Your task to perform on an android device: open wifi settings Image 0: 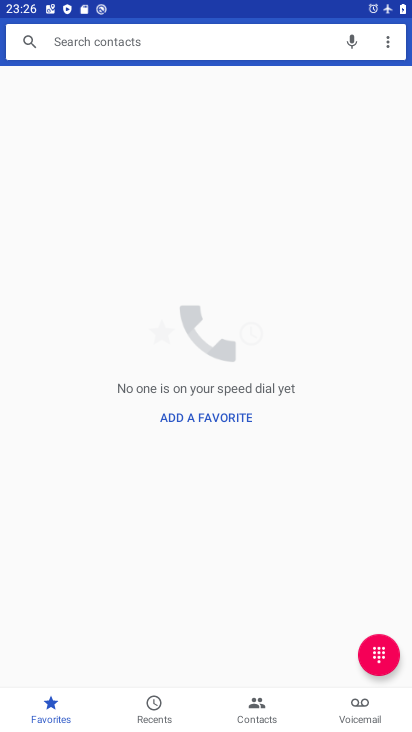
Step 0: press home button
Your task to perform on an android device: open wifi settings Image 1: 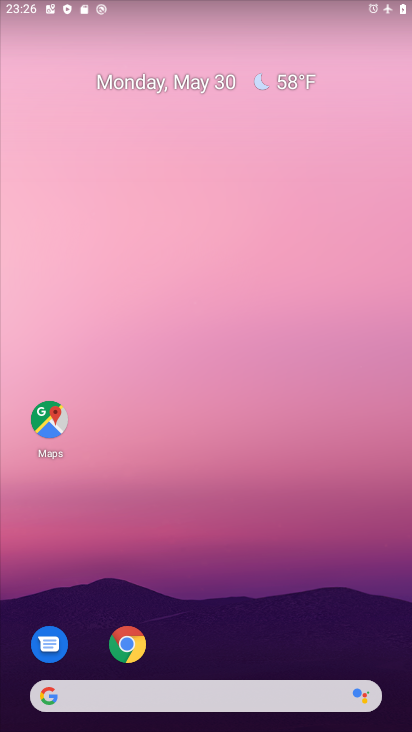
Step 1: drag from (348, 627) to (272, 110)
Your task to perform on an android device: open wifi settings Image 2: 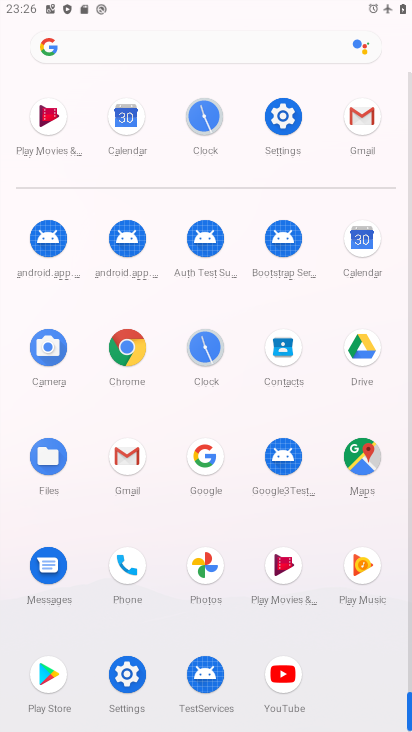
Step 2: click (128, 674)
Your task to perform on an android device: open wifi settings Image 3: 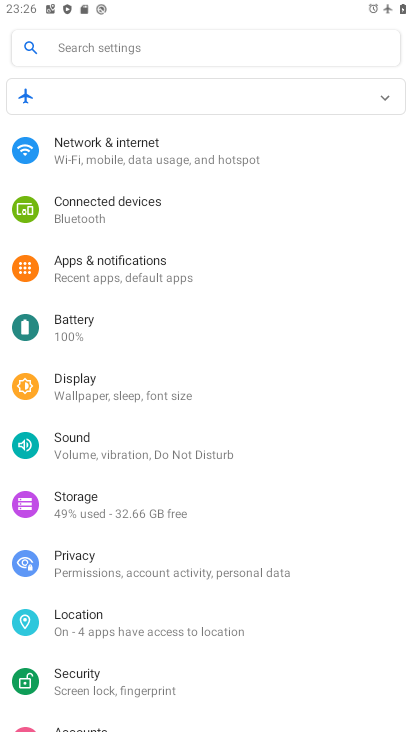
Step 3: click (93, 142)
Your task to perform on an android device: open wifi settings Image 4: 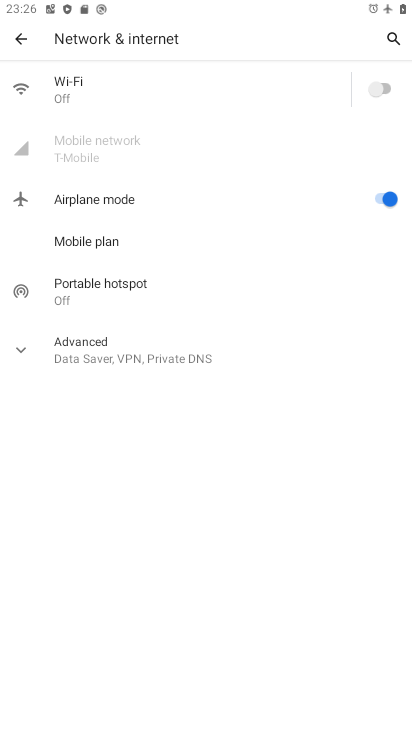
Step 4: click (51, 76)
Your task to perform on an android device: open wifi settings Image 5: 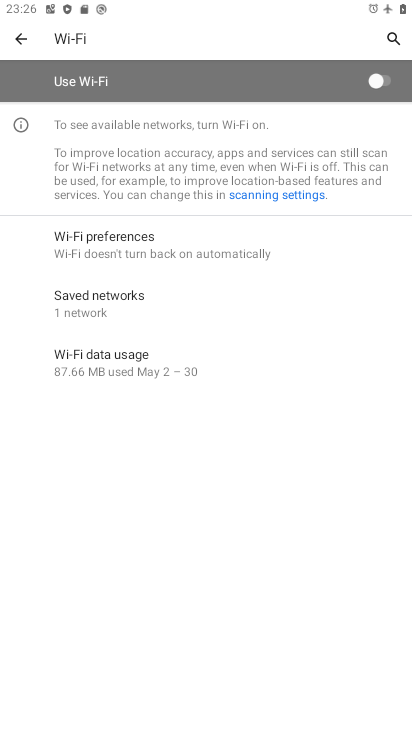
Step 5: task complete